Your task to perform on an android device: see tabs open on other devices in the chrome app Image 0: 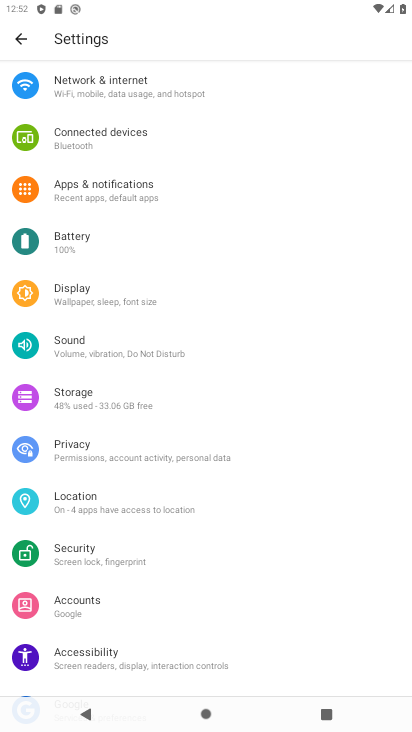
Step 0: press home button
Your task to perform on an android device: see tabs open on other devices in the chrome app Image 1: 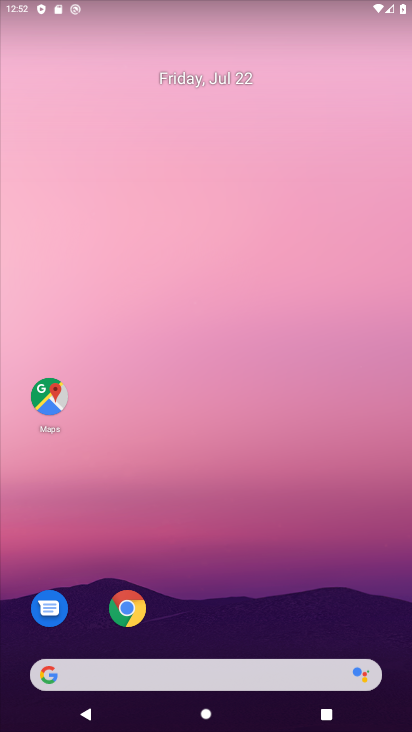
Step 1: click (126, 607)
Your task to perform on an android device: see tabs open on other devices in the chrome app Image 2: 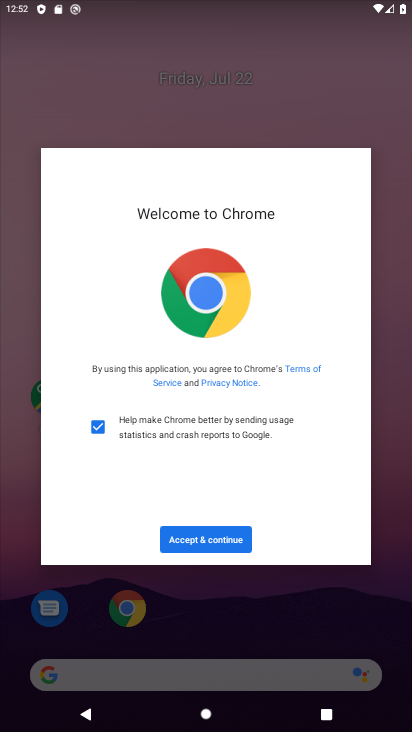
Step 2: click (239, 531)
Your task to perform on an android device: see tabs open on other devices in the chrome app Image 3: 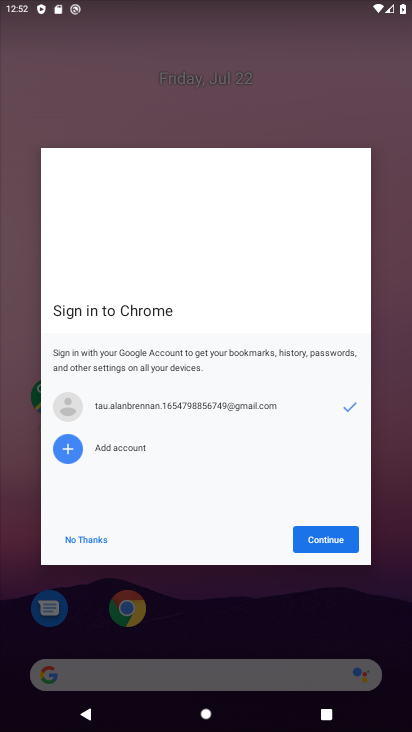
Step 3: click (321, 536)
Your task to perform on an android device: see tabs open on other devices in the chrome app Image 4: 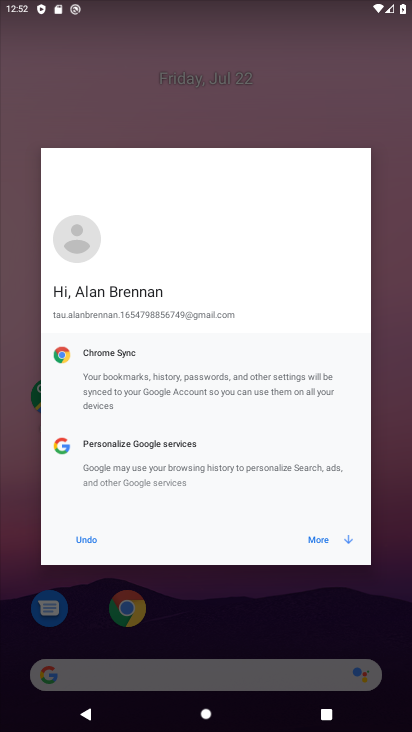
Step 4: click (321, 536)
Your task to perform on an android device: see tabs open on other devices in the chrome app Image 5: 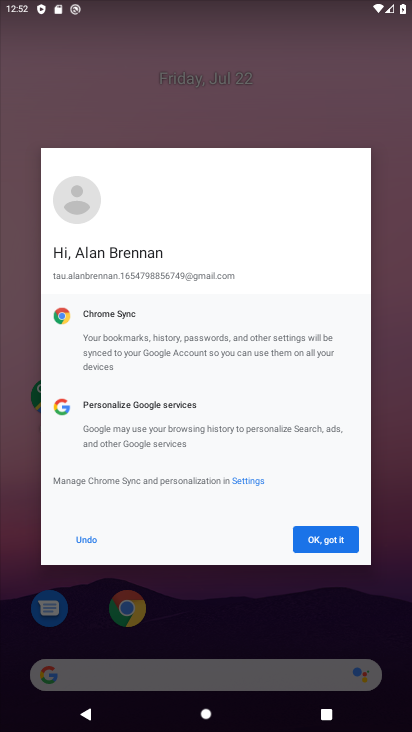
Step 5: click (321, 536)
Your task to perform on an android device: see tabs open on other devices in the chrome app Image 6: 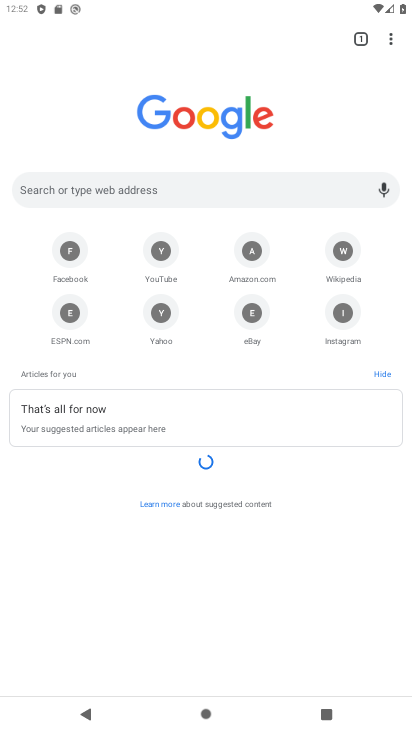
Step 6: click (387, 42)
Your task to perform on an android device: see tabs open on other devices in the chrome app Image 7: 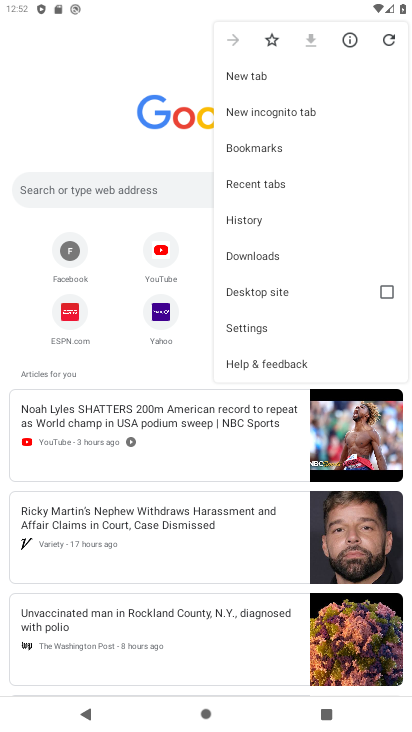
Step 7: click (254, 185)
Your task to perform on an android device: see tabs open on other devices in the chrome app Image 8: 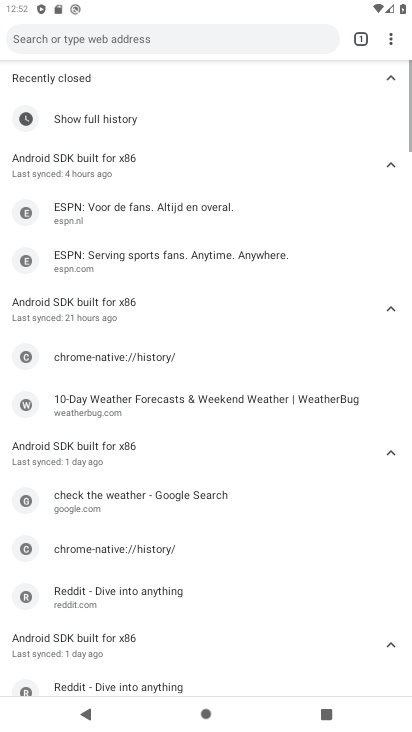
Step 8: task complete